Your task to perform on an android device: Show the shopping cart on amazon. Add "macbook pro 15 inch" to the cart on amazon, then select checkout. Image 0: 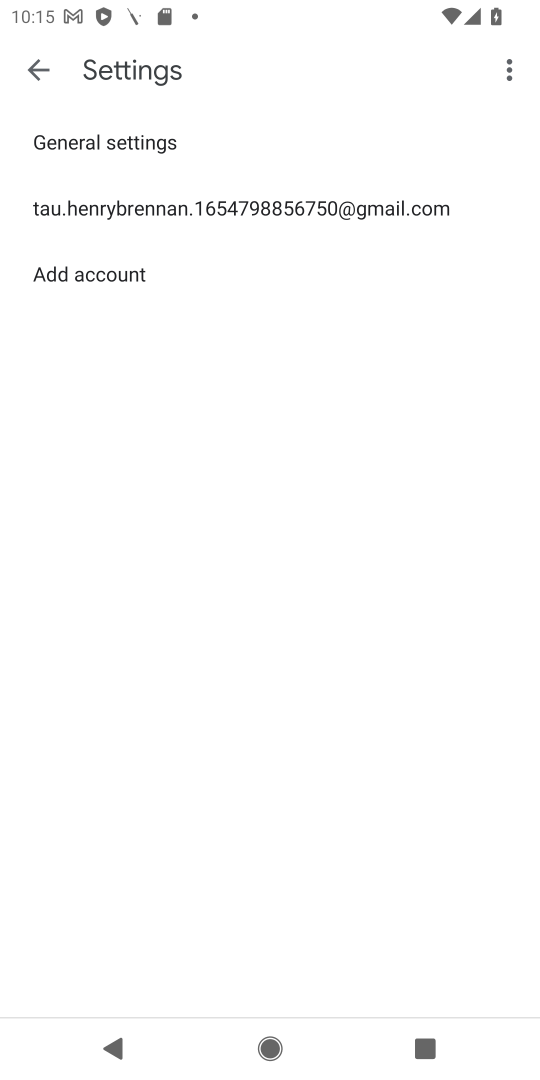
Step 0: press home button
Your task to perform on an android device: Show the shopping cart on amazon. Add "macbook pro 15 inch" to the cart on amazon, then select checkout. Image 1: 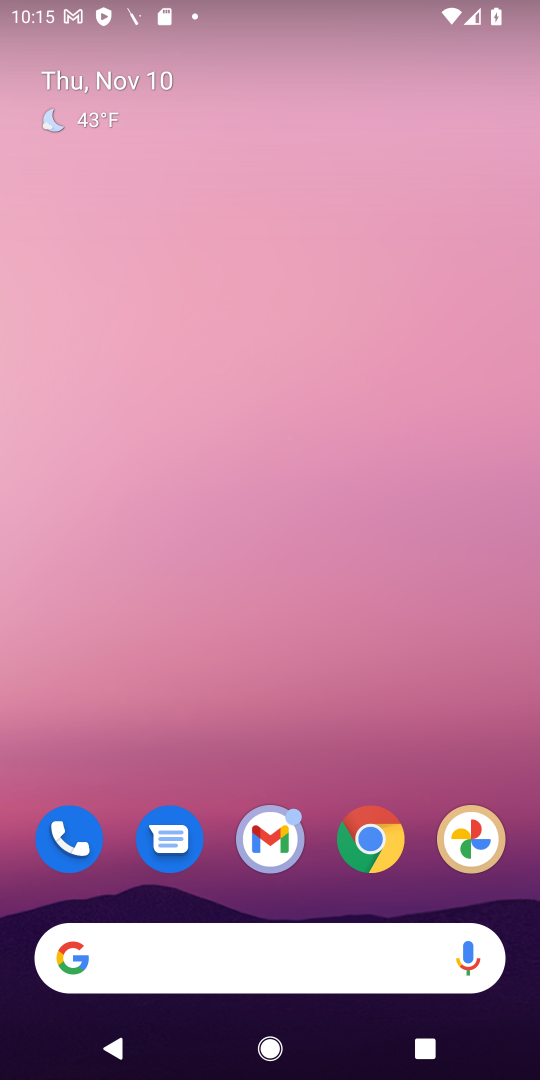
Step 1: click (386, 825)
Your task to perform on an android device: Show the shopping cart on amazon. Add "macbook pro 15 inch" to the cart on amazon, then select checkout. Image 2: 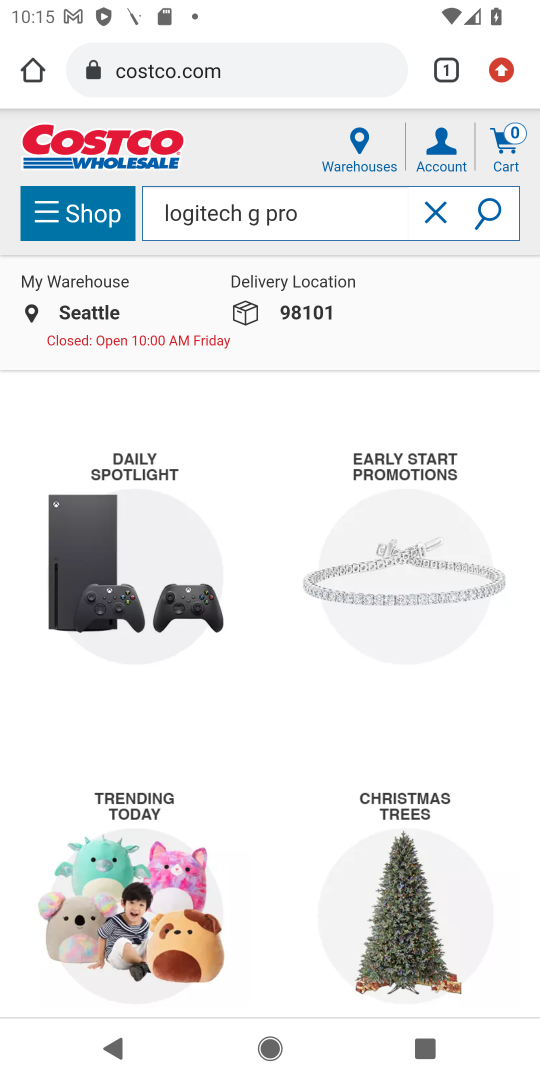
Step 2: click (348, 78)
Your task to perform on an android device: Show the shopping cart on amazon. Add "macbook pro 15 inch" to the cart on amazon, then select checkout. Image 3: 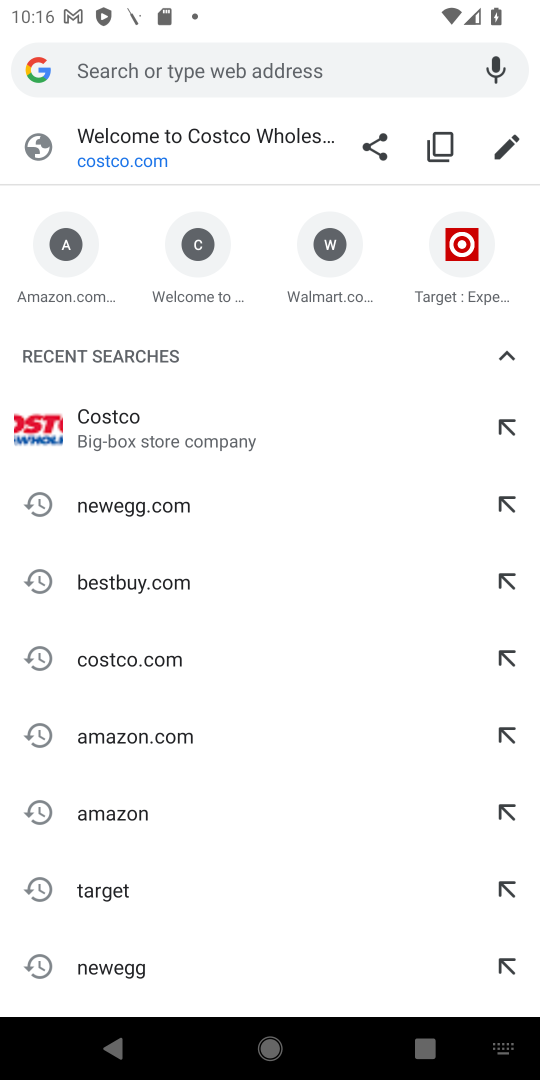
Step 3: click (154, 734)
Your task to perform on an android device: Show the shopping cart on amazon. Add "macbook pro 15 inch" to the cart on amazon, then select checkout. Image 4: 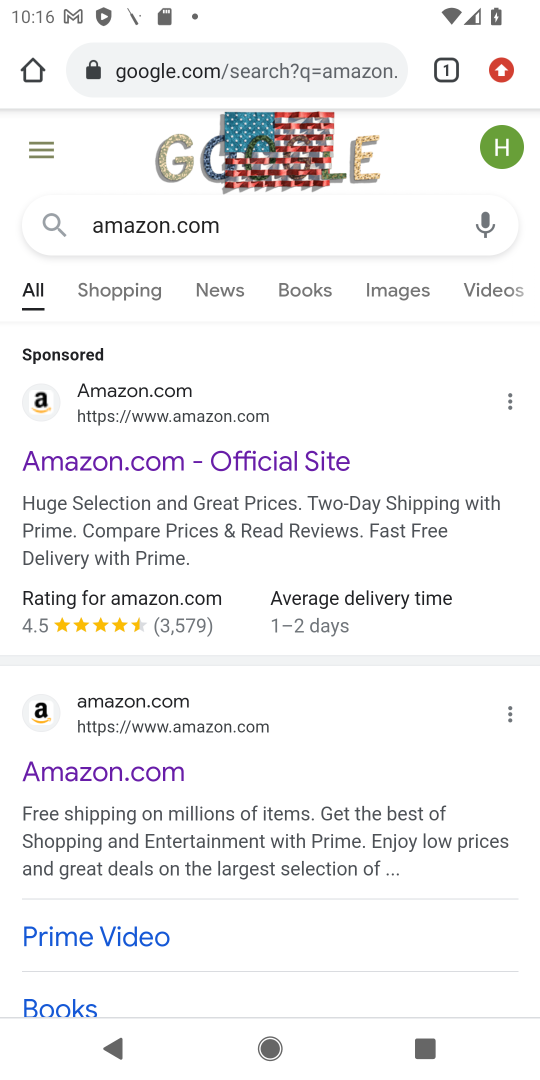
Step 4: click (228, 413)
Your task to perform on an android device: Show the shopping cart on amazon. Add "macbook pro 15 inch" to the cart on amazon, then select checkout. Image 5: 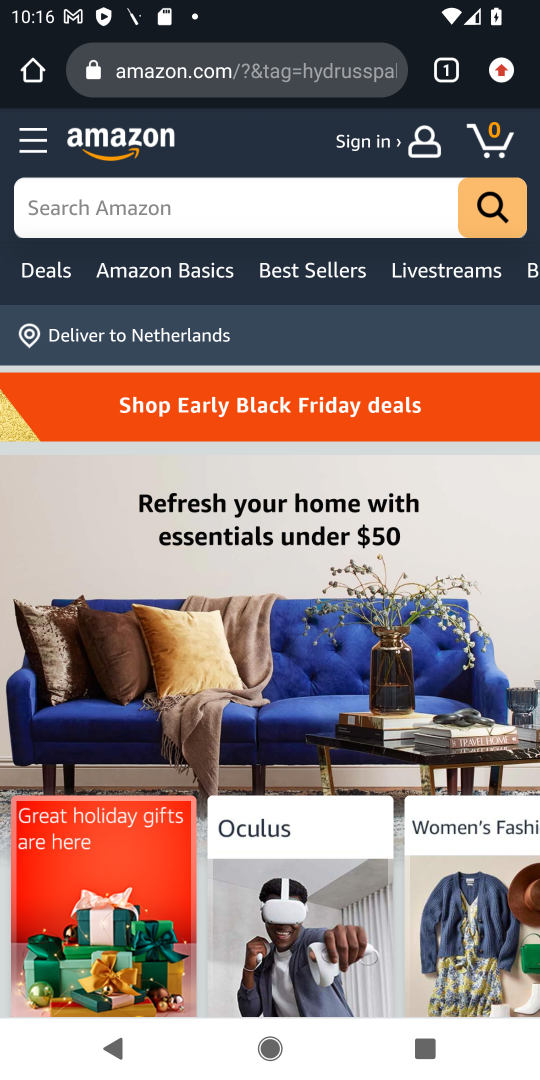
Step 5: click (236, 208)
Your task to perform on an android device: Show the shopping cart on amazon. Add "macbook pro 15 inch" to the cart on amazon, then select checkout. Image 6: 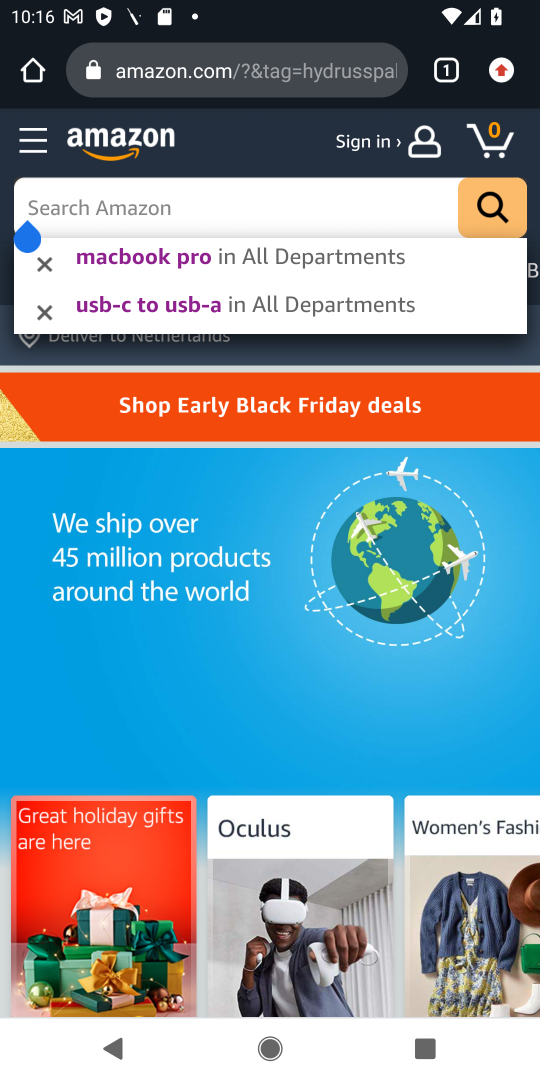
Step 6: type "macbook pro 15 inch"
Your task to perform on an android device: Show the shopping cart on amazon. Add "macbook pro 15 inch" to the cart on amazon, then select checkout. Image 7: 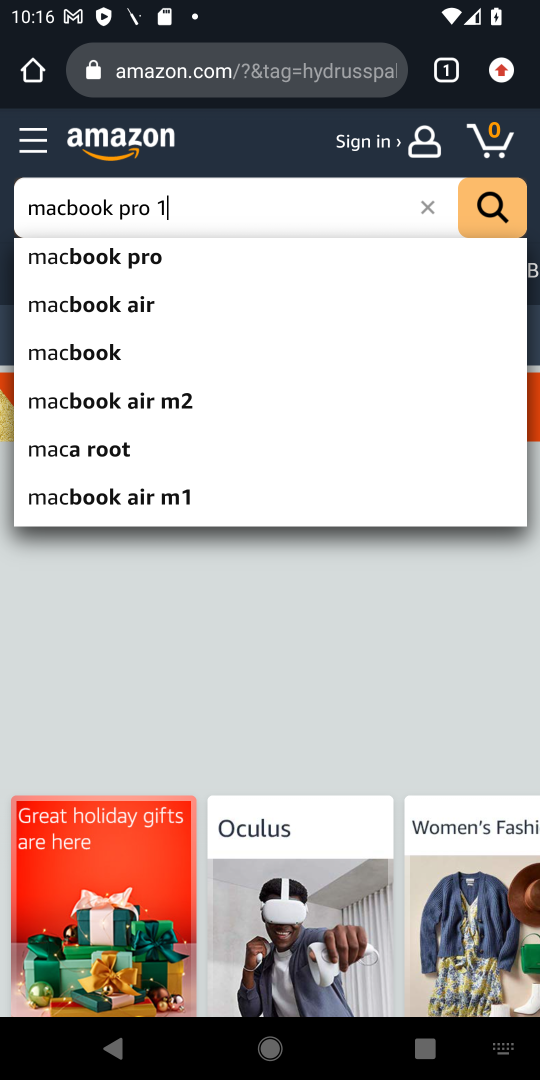
Step 7: press enter
Your task to perform on an android device: Show the shopping cart on amazon. Add "macbook pro 15 inch" to the cart on amazon, then select checkout. Image 8: 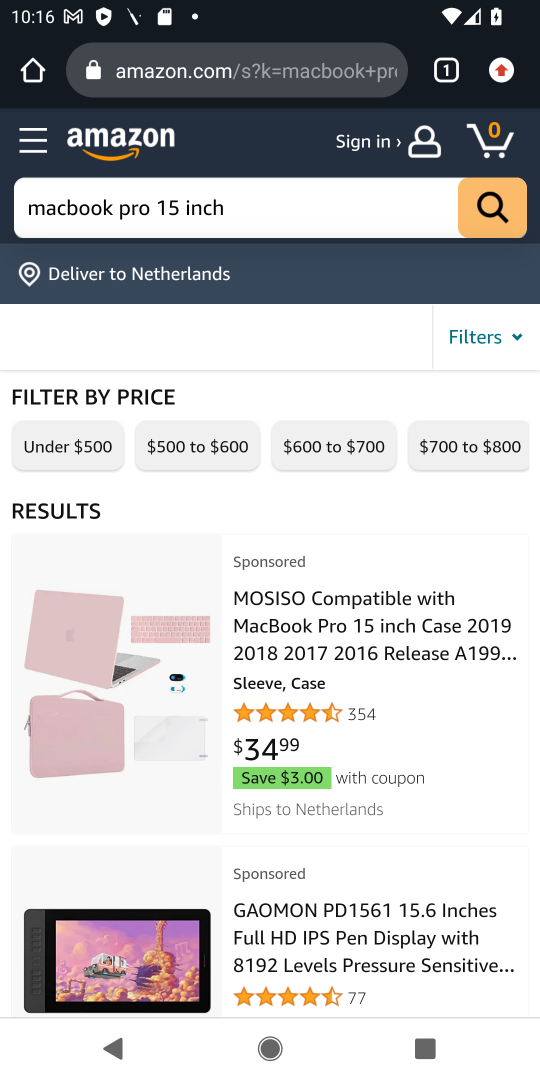
Step 8: click (142, 679)
Your task to perform on an android device: Show the shopping cart on amazon. Add "macbook pro 15 inch" to the cart on amazon, then select checkout. Image 9: 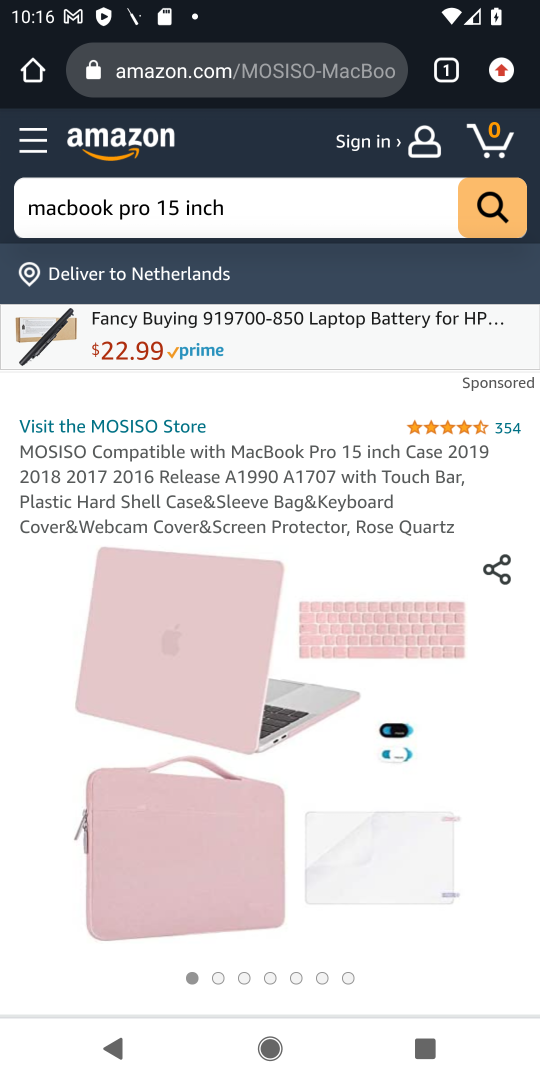
Step 9: drag from (257, 753) to (321, 498)
Your task to perform on an android device: Show the shopping cart on amazon. Add "macbook pro 15 inch" to the cart on amazon, then select checkout. Image 10: 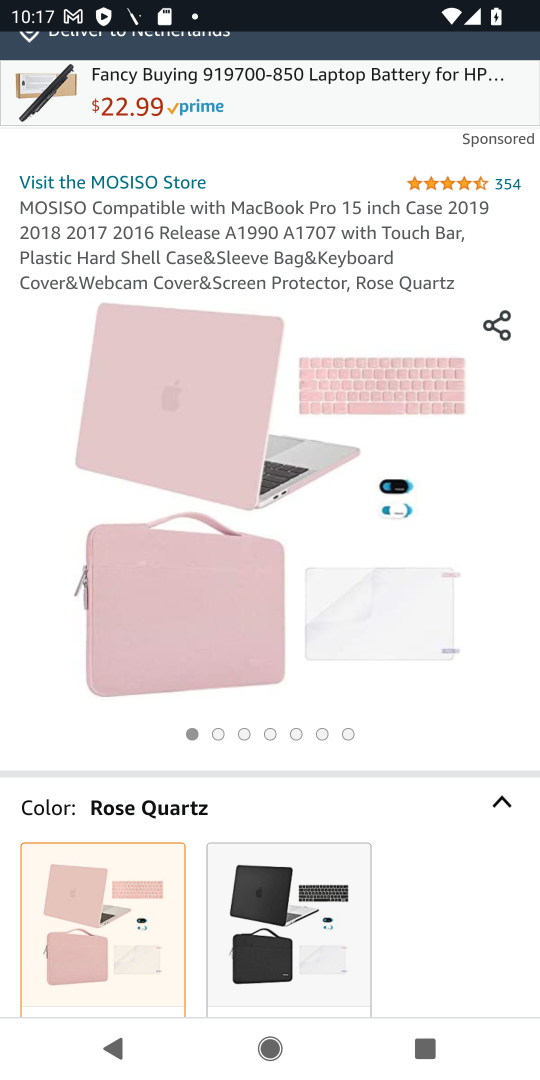
Step 10: drag from (329, 665) to (396, 316)
Your task to perform on an android device: Show the shopping cart on amazon. Add "macbook pro 15 inch" to the cart on amazon, then select checkout. Image 11: 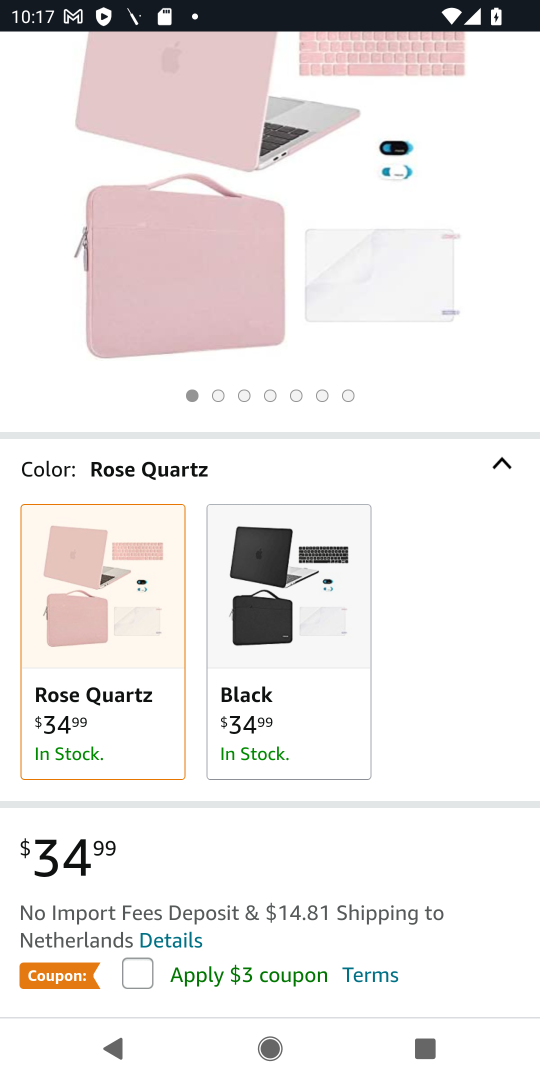
Step 11: drag from (435, 773) to (441, 455)
Your task to perform on an android device: Show the shopping cart on amazon. Add "macbook pro 15 inch" to the cart on amazon, then select checkout. Image 12: 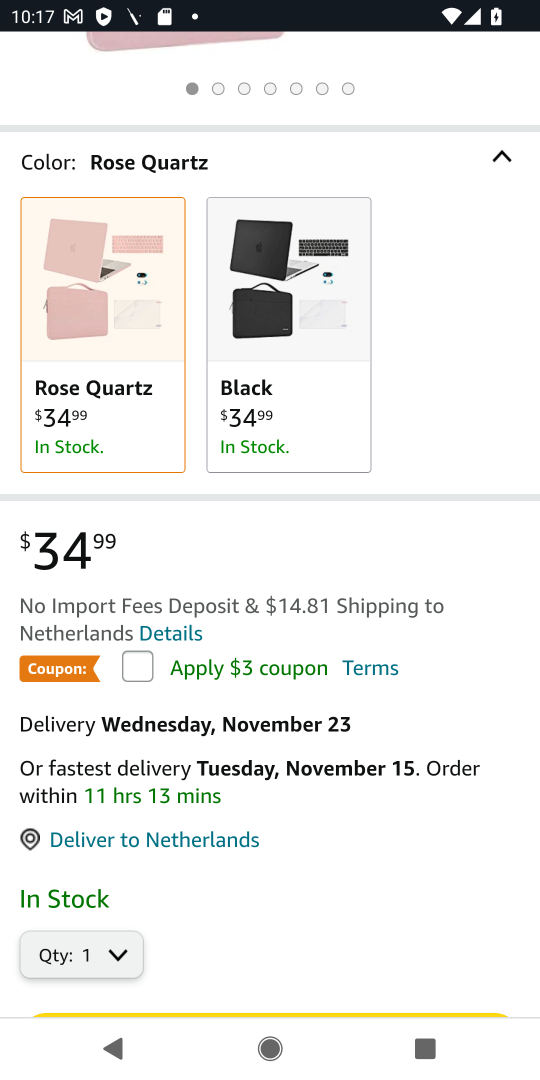
Step 12: drag from (441, 627) to (434, 373)
Your task to perform on an android device: Show the shopping cart on amazon. Add "macbook pro 15 inch" to the cart on amazon, then select checkout. Image 13: 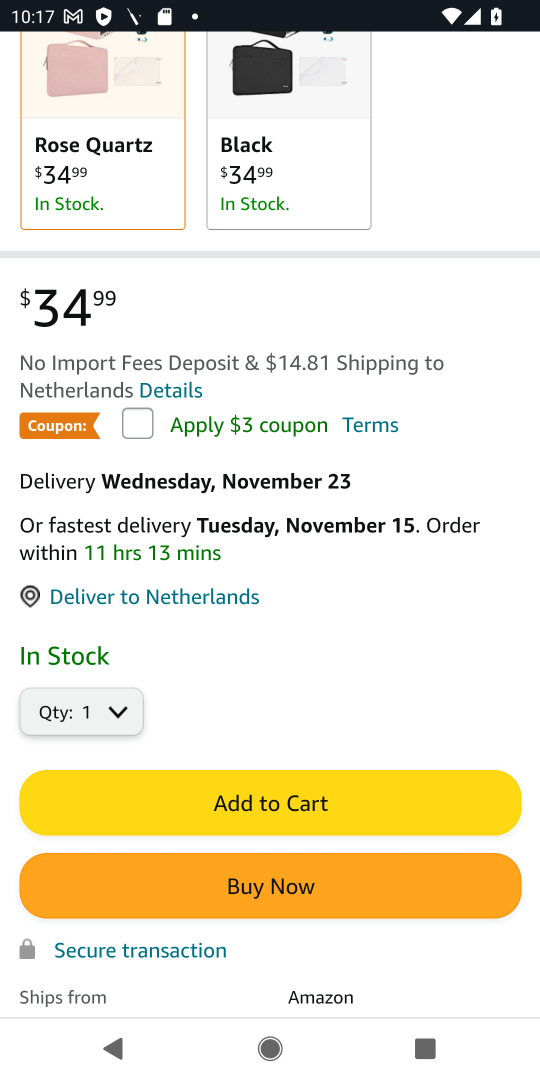
Step 13: click (331, 804)
Your task to perform on an android device: Show the shopping cart on amazon. Add "macbook pro 15 inch" to the cart on amazon, then select checkout. Image 14: 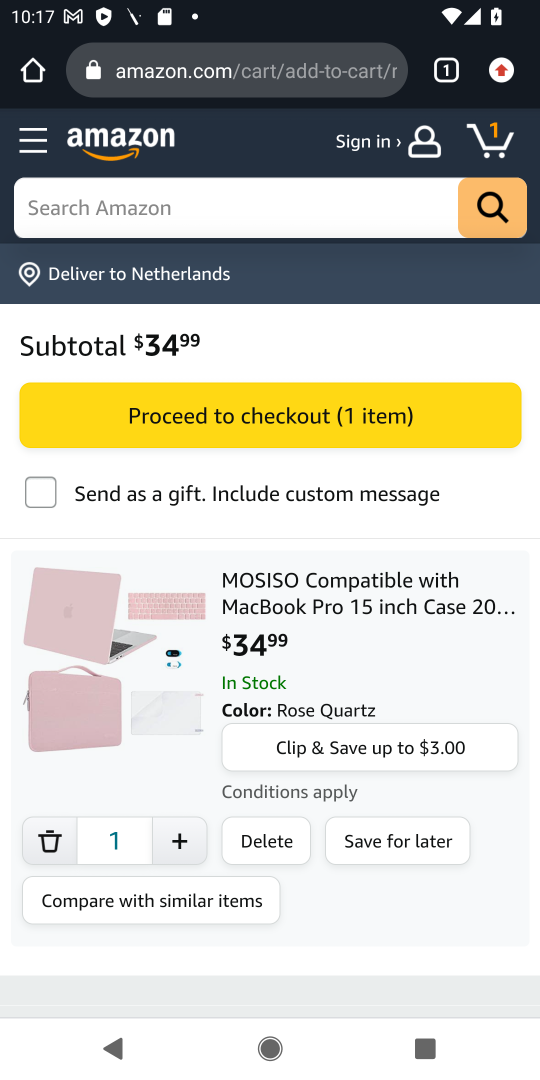
Step 14: click (307, 408)
Your task to perform on an android device: Show the shopping cart on amazon. Add "macbook pro 15 inch" to the cart on amazon, then select checkout. Image 15: 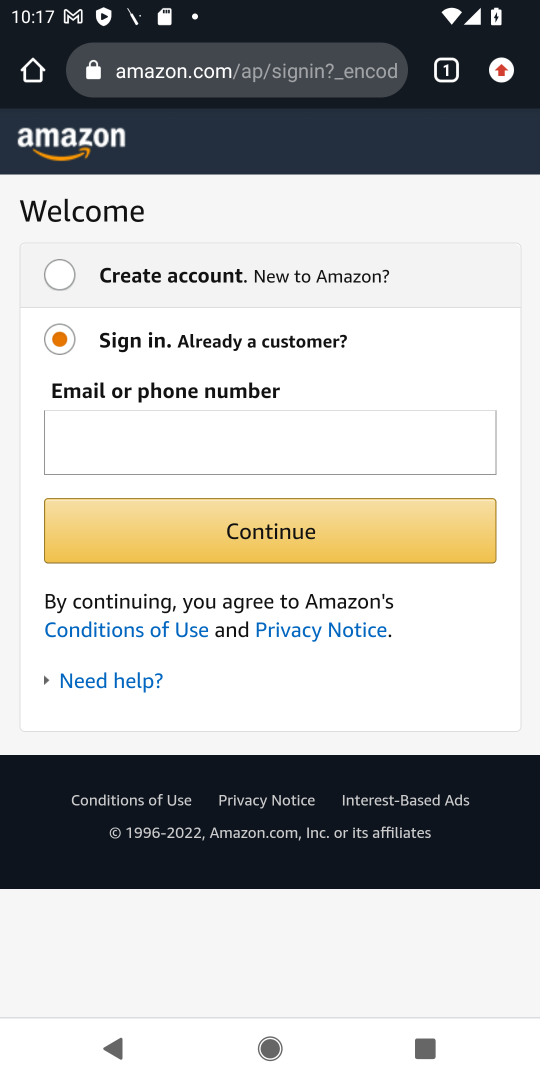
Step 15: task complete